Your task to perform on an android device: turn off translation in the chrome app Image 0: 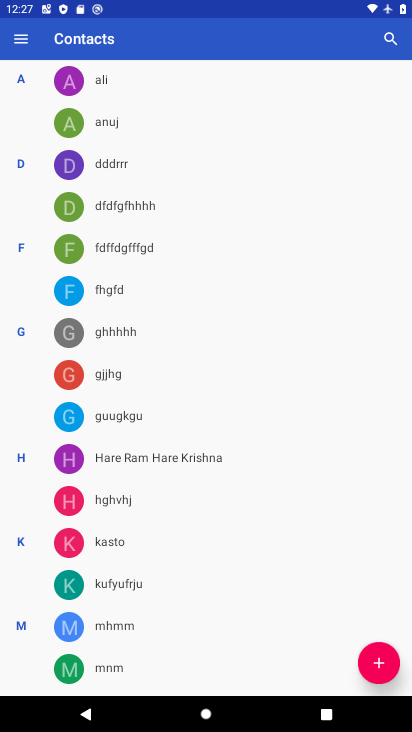
Step 0: press home button
Your task to perform on an android device: turn off translation in the chrome app Image 1: 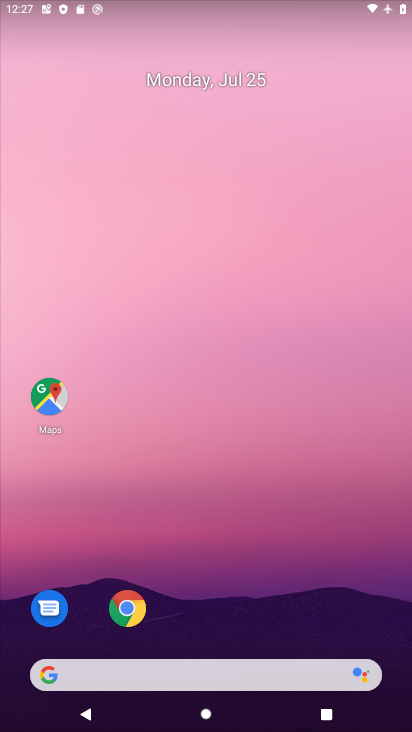
Step 1: drag from (260, 665) to (290, 133)
Your task to perform on an android device: turn off translation in the chrome app Image 2: 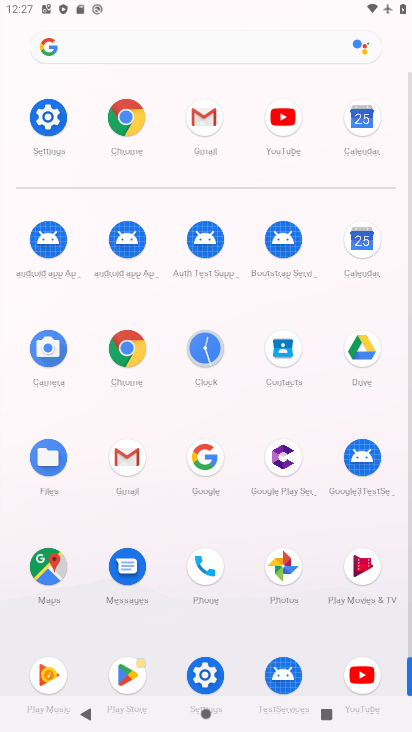
Step 2: click (137, 132)
Your task to perform on an android device: turn off translation in the chrome app Image 3: 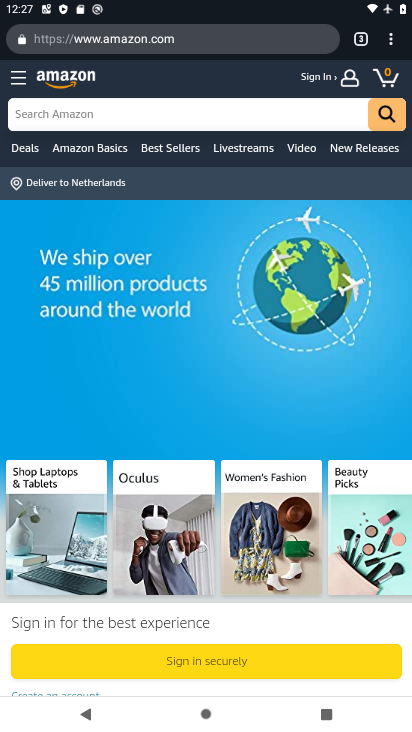
Step 3: click (392, 47)
Your task to perform on an android device: turn off translation in the chrome app Image 4: 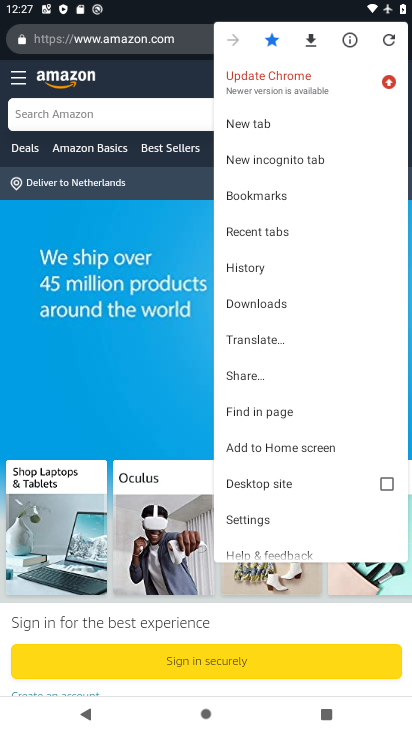
Step 4: click (247, 337)
Your task to perform on an android device: turn off translation in the chrome app Image 5: 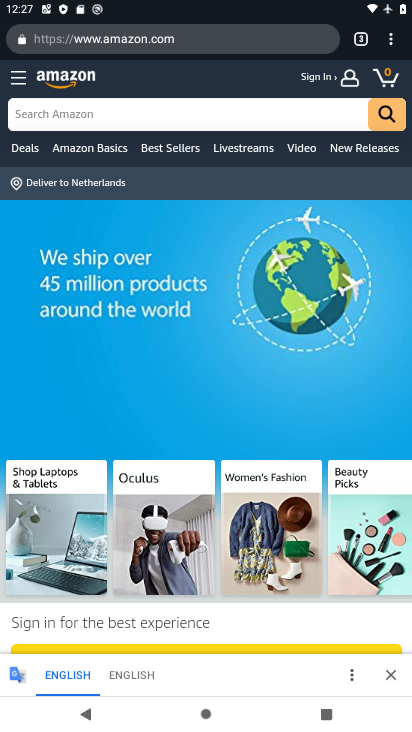
Step 5: click (343, 668)
Your task to perform on an android device: turn off translation in the chrome app Image 6: 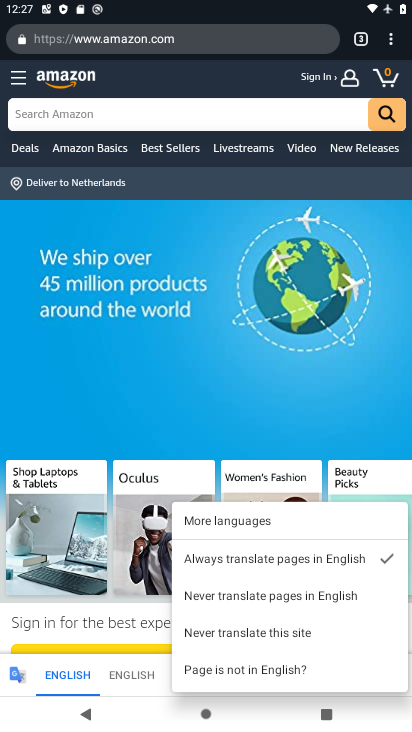
Step 6: click (221, 638)
Your task to perform on an android device: turn off translation in the chrome app Image 7: 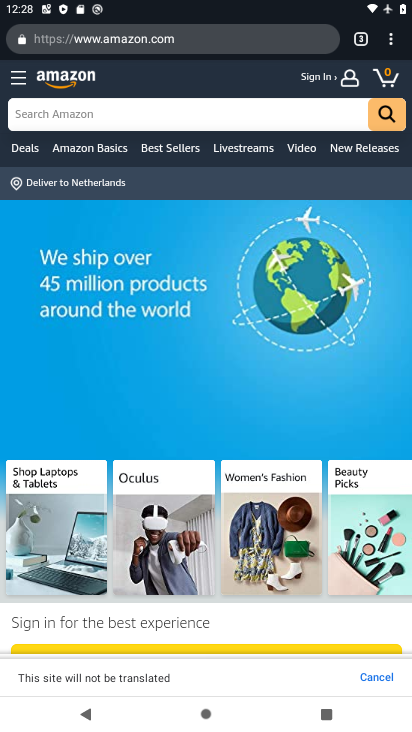
Step 7: task complete